Your task to perform on an android device: Search for "razer blade" on target, select the first entry, add it to the cart, then select checkout. Image 0: 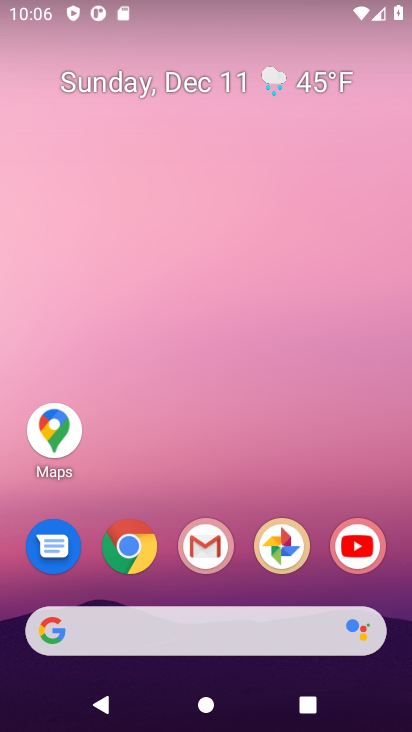
Step 0: click (134, 560)
Your task to perform on an android device: Search for "razer blade" on target, select the first entry, add it to the cart, then select checkout. Image 1: 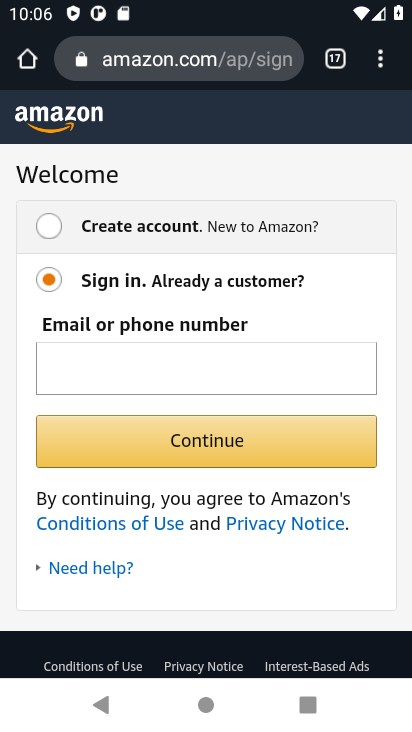
Step 1: click (179, 54)
Your task to perform on an android device: Search for "razer blade" on target, select the first entry, add it to the cart, then select checkout. Image 2: 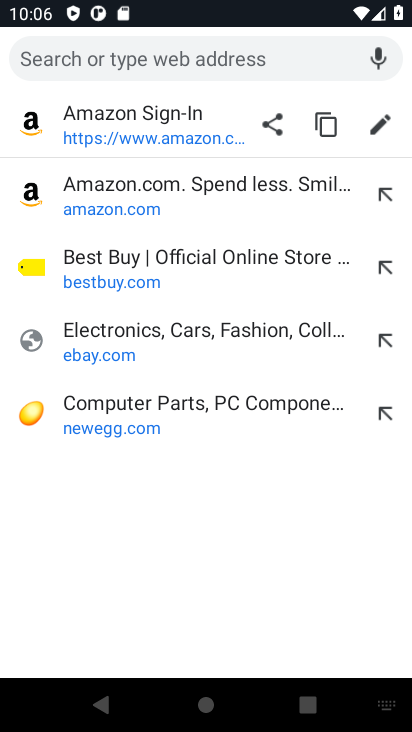
Step 2: type "target.com"
Your task to perform on an android device: Search for "razer blade" on target, select the first entry, add it to the cart, then select checkout. Image 3: 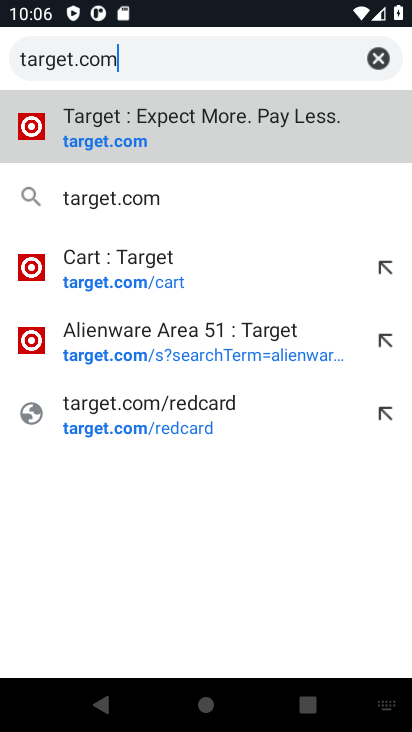
Step 3: click (105, 158)
Your task to perform on an android device: Search for "razer blade" on target, select the first entry, add it to the cart, then select checkout. Image 4: 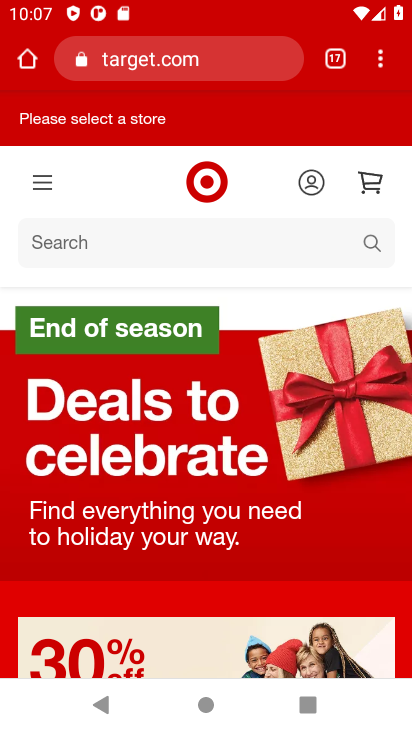
Step 4: click (44, 246)
Your task to perform on an android device: Search for "razer blade" on target, select the first entry, add it to the cart, then select checkout. Image 5: 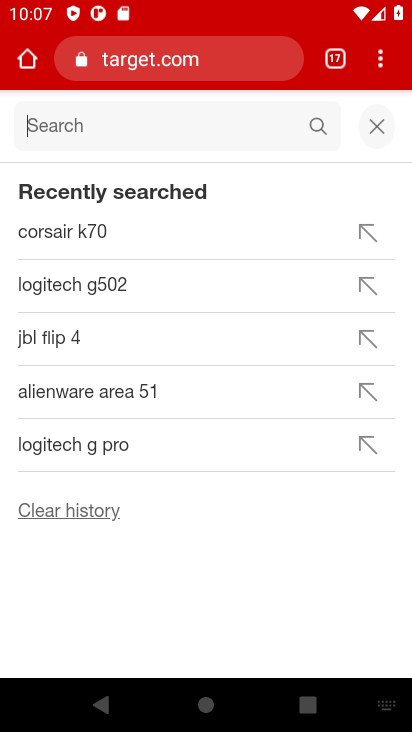
Step 5: type "razer blade"
Your task to perform on an android device: Search for "razer blade" on target, select the first entry, add it to the cart, then select checkout. Image 6: 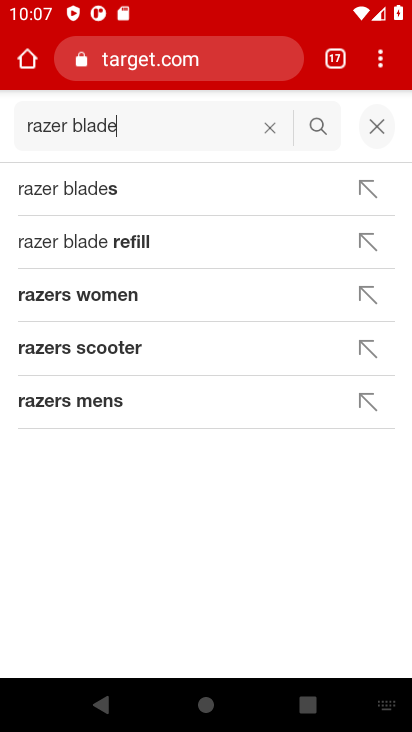
Step 6: click (313, 127)
Your task to perform on an android device: Search for "razer blade" on target, select the first entry, add it to the cart, then select checkout. Image 7: 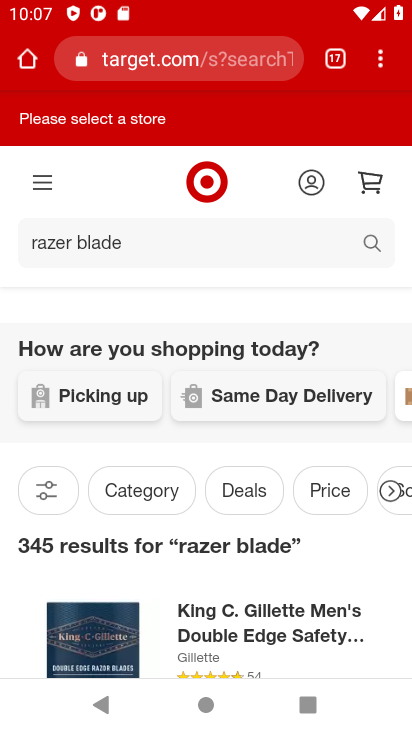
Step 7: task complete